Your task to perform on an android device: move a message to another label in the gmail app Image 0: 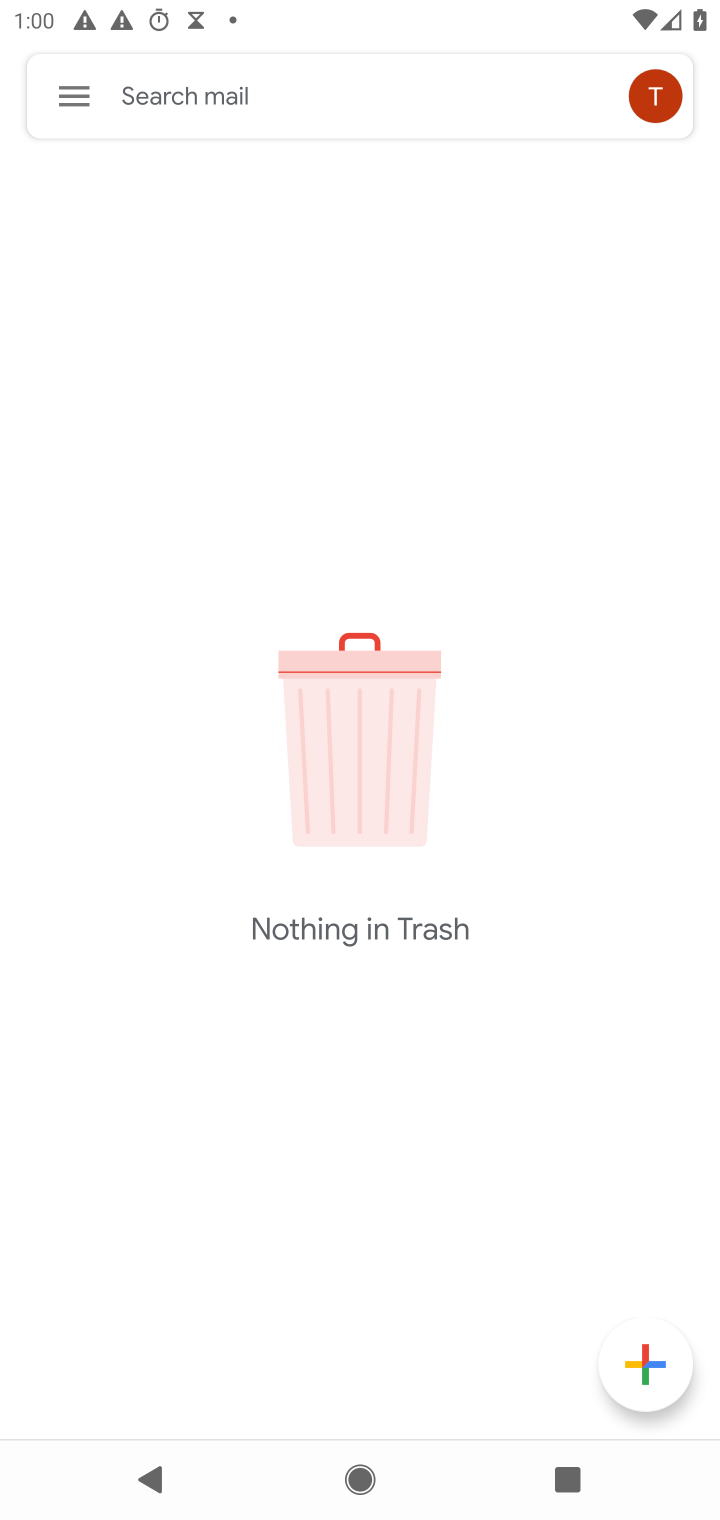
Step 0: press home button
Your task to perform on an android device: move a message to another label in the gmail app Image 1: 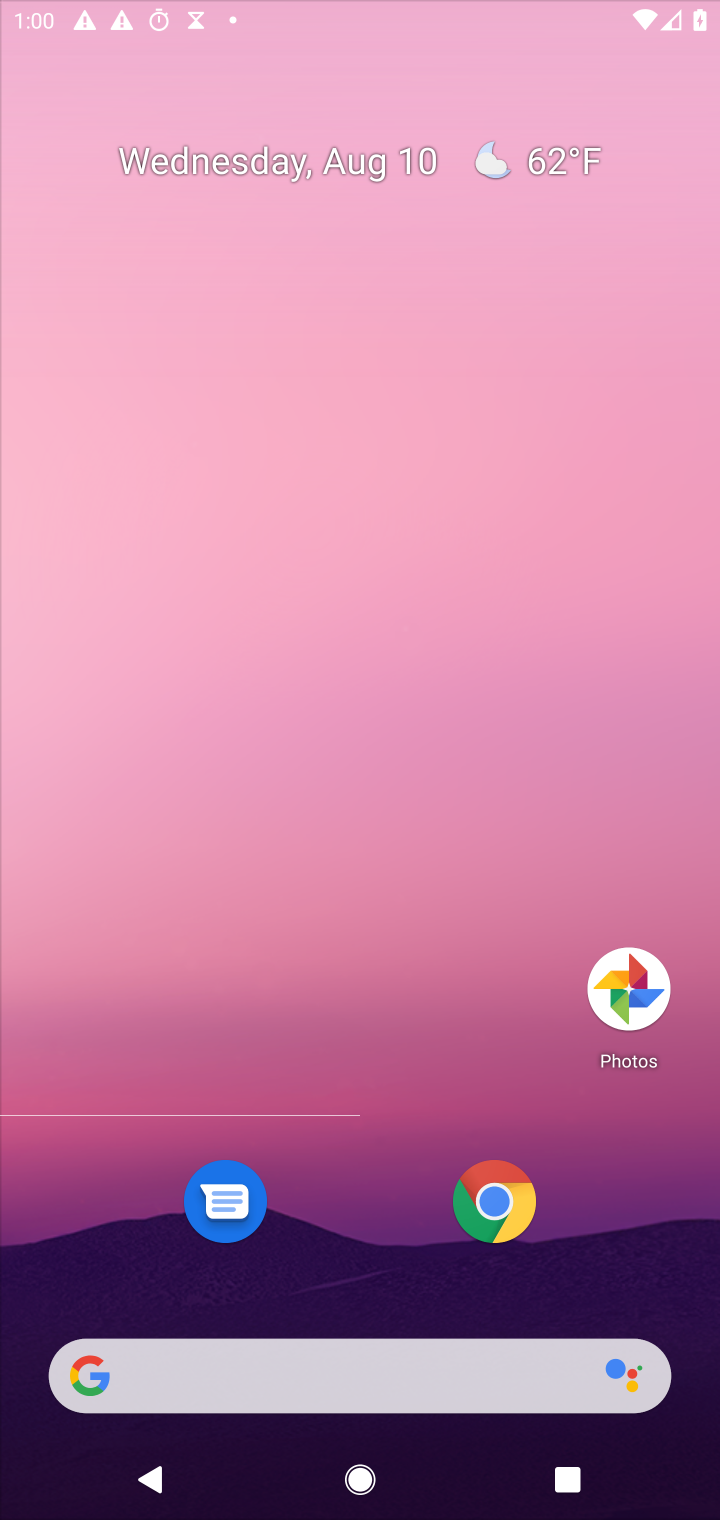
Step 1: drag from (342, 1154) to (330, 34)
Your task to perform on an android device: move a message to another label in the gmail app Image 2: 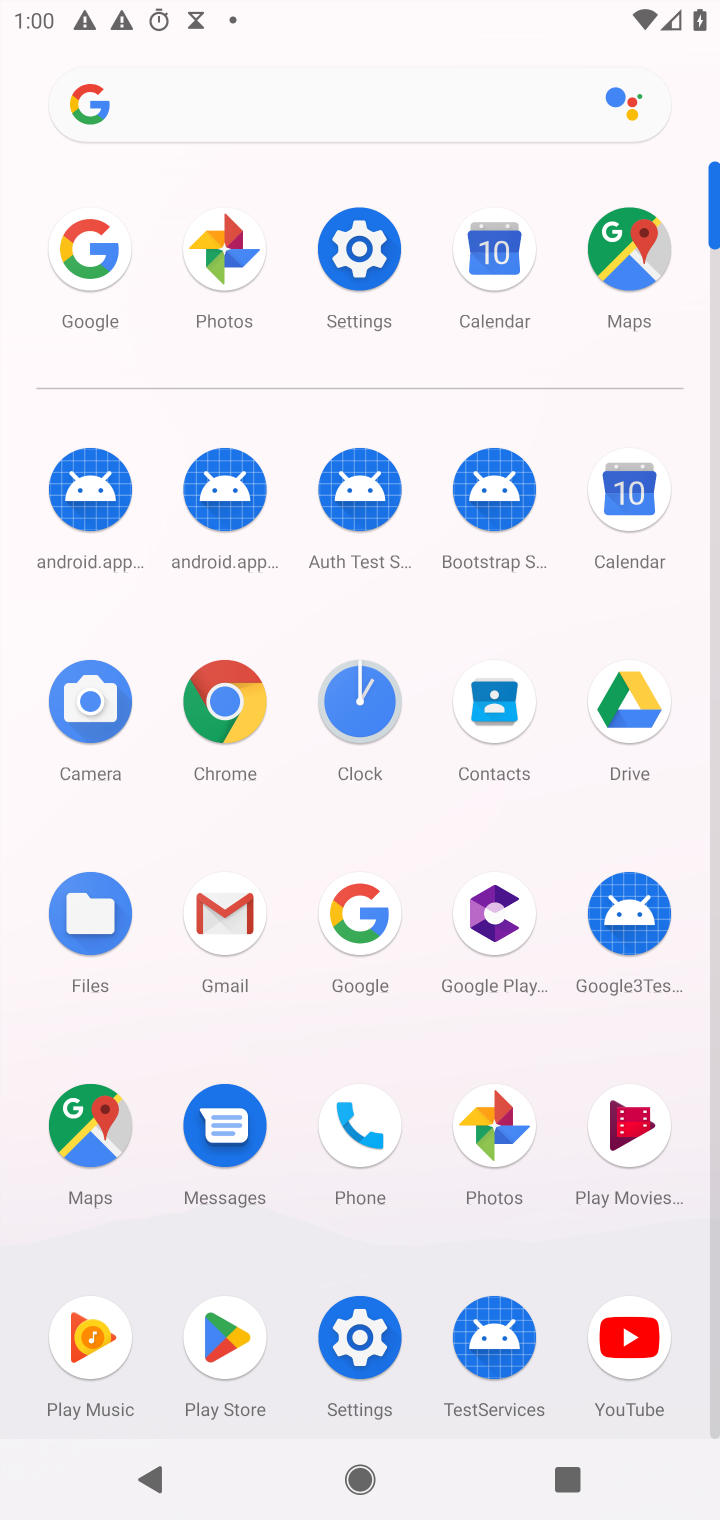
Step 2: click (219, 905)
Your task to perform on an android device: move a message to another label in the gmail app Image 3: 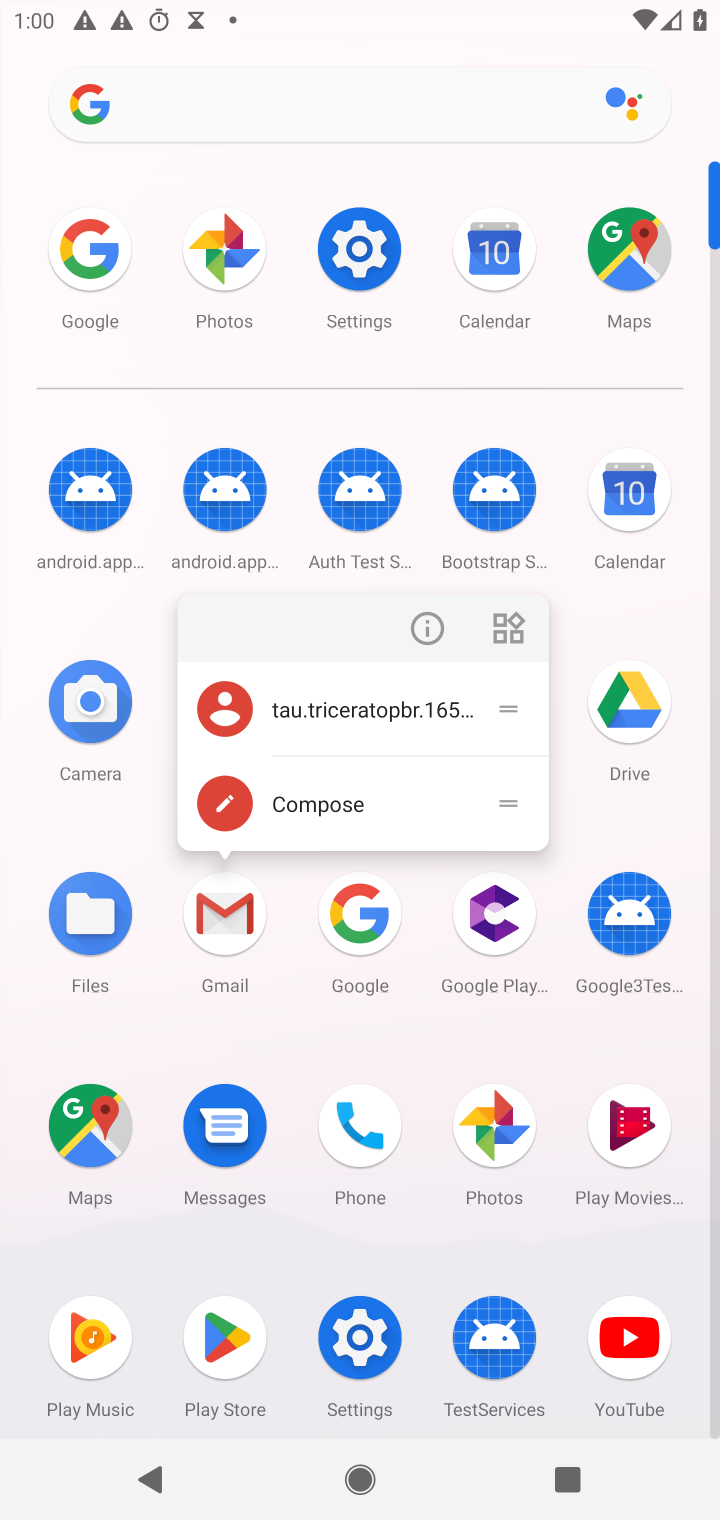
Step 3: click (229, 920)
Your task to perform on an android device: move a message to another label in the gmail app Image 4: 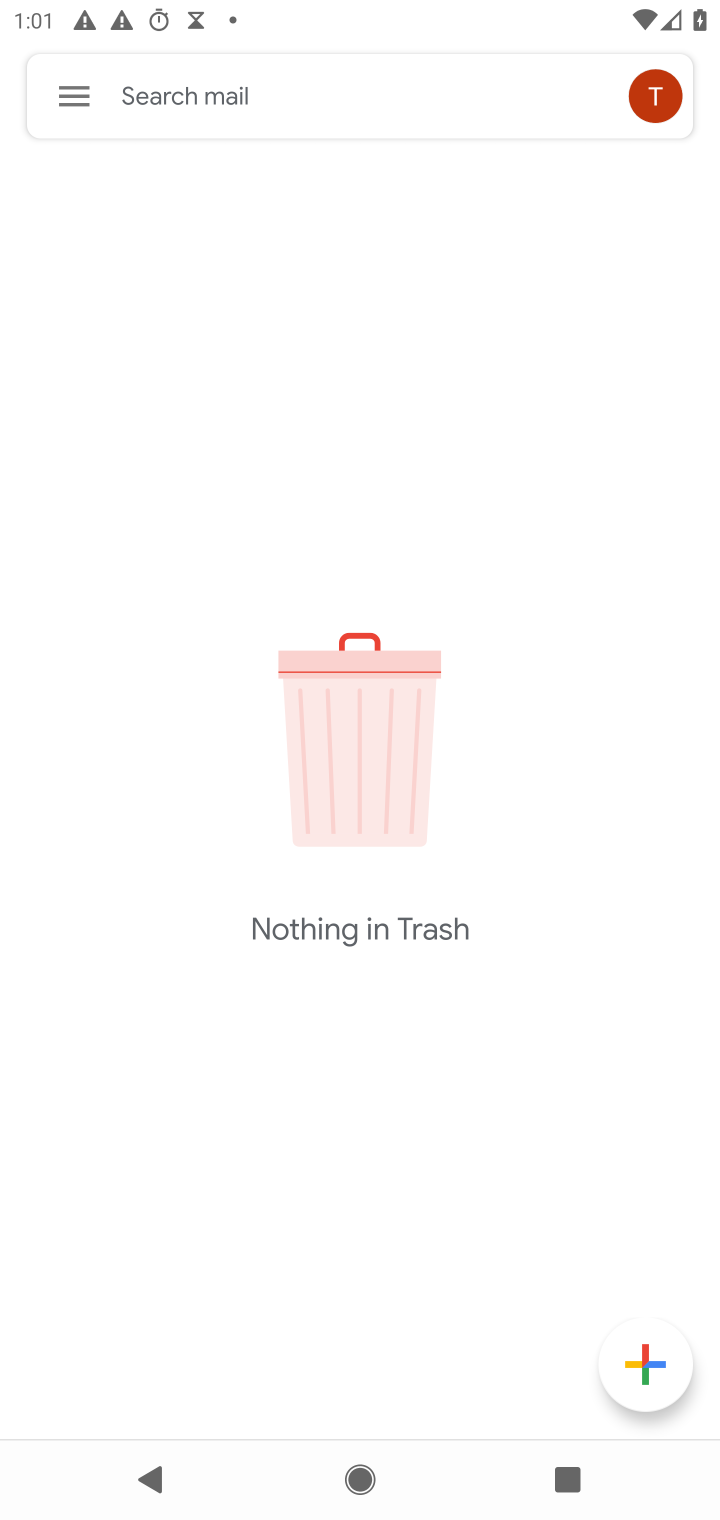
Step 4: click (85, 105)
Your task to perform on an android device: move a message to another label in the gmail app Image 5: 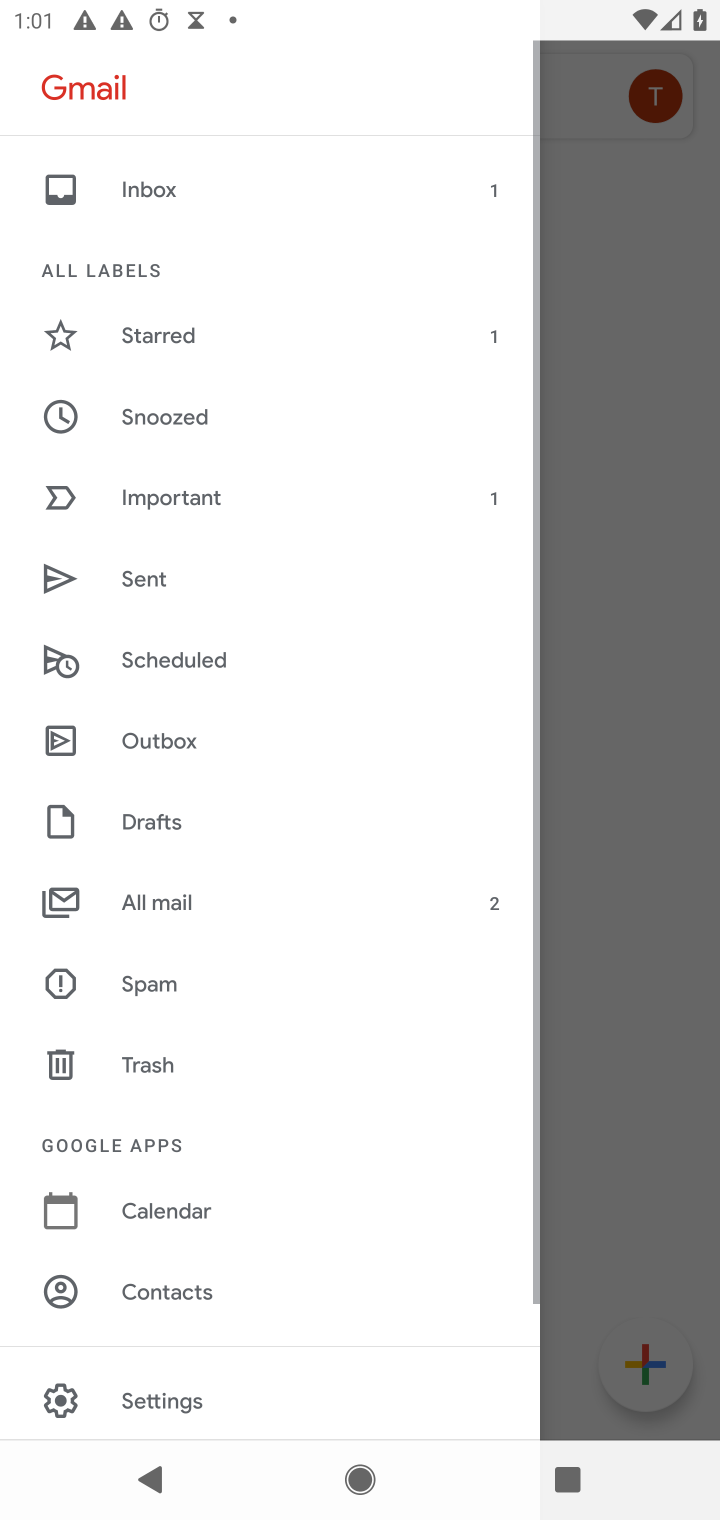
Step 5: click (138, 905)
Your task to perform on an android device: move a message to another label in the gmail app Image 6: 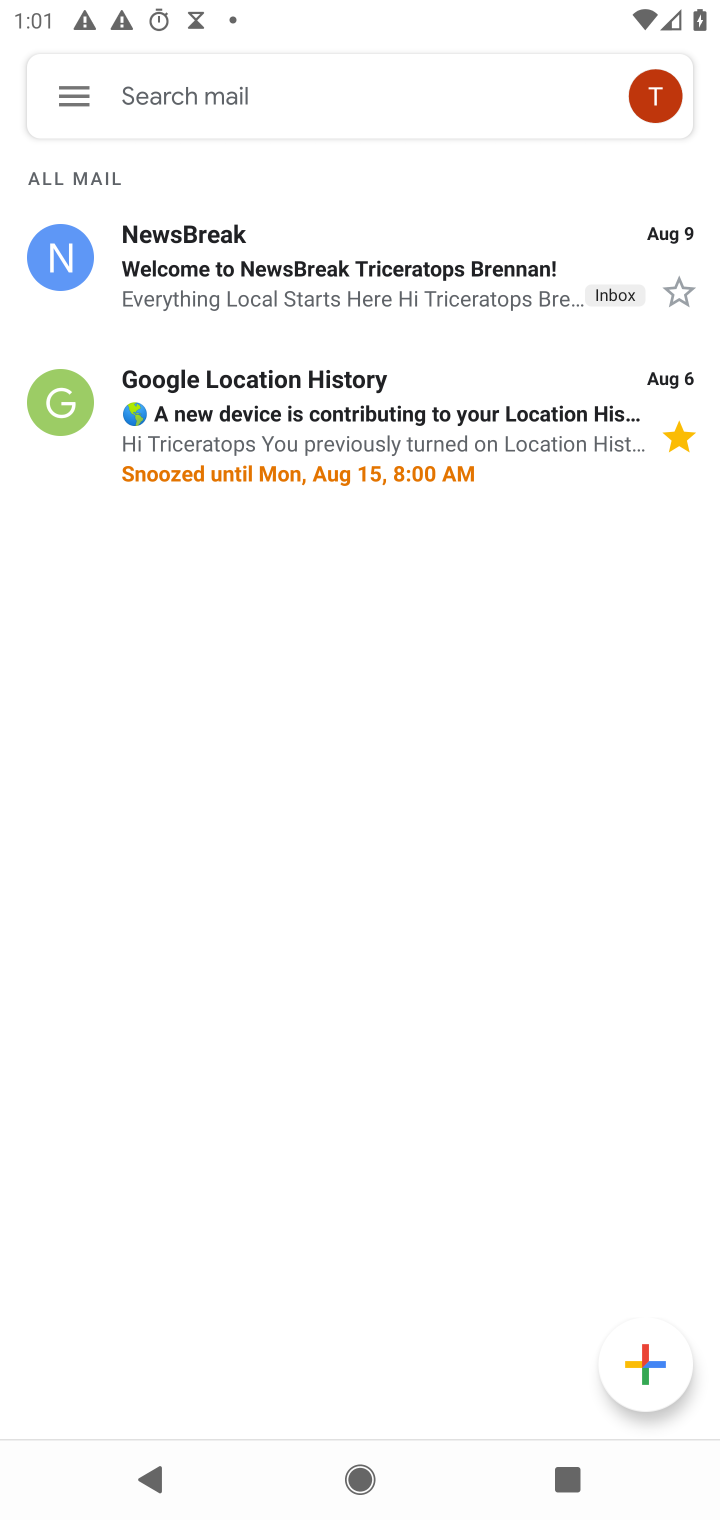
Step 6: click (259, 279)
Your task to perform on an android device: move a message to another label in the gmail app Image 7: 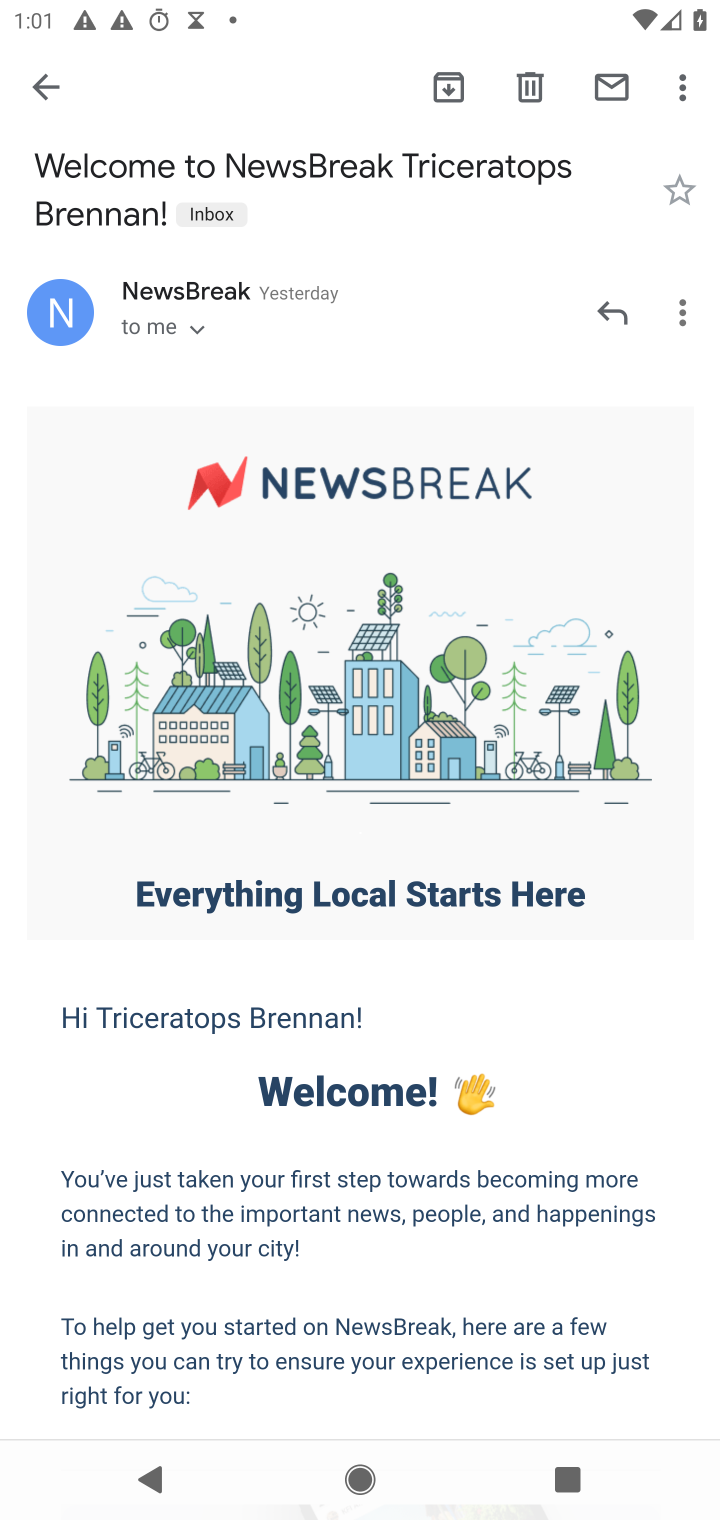
Step 7: click (694, 80)
Your task to perform on an android device: move a message to another label in the gmail app Image 8: 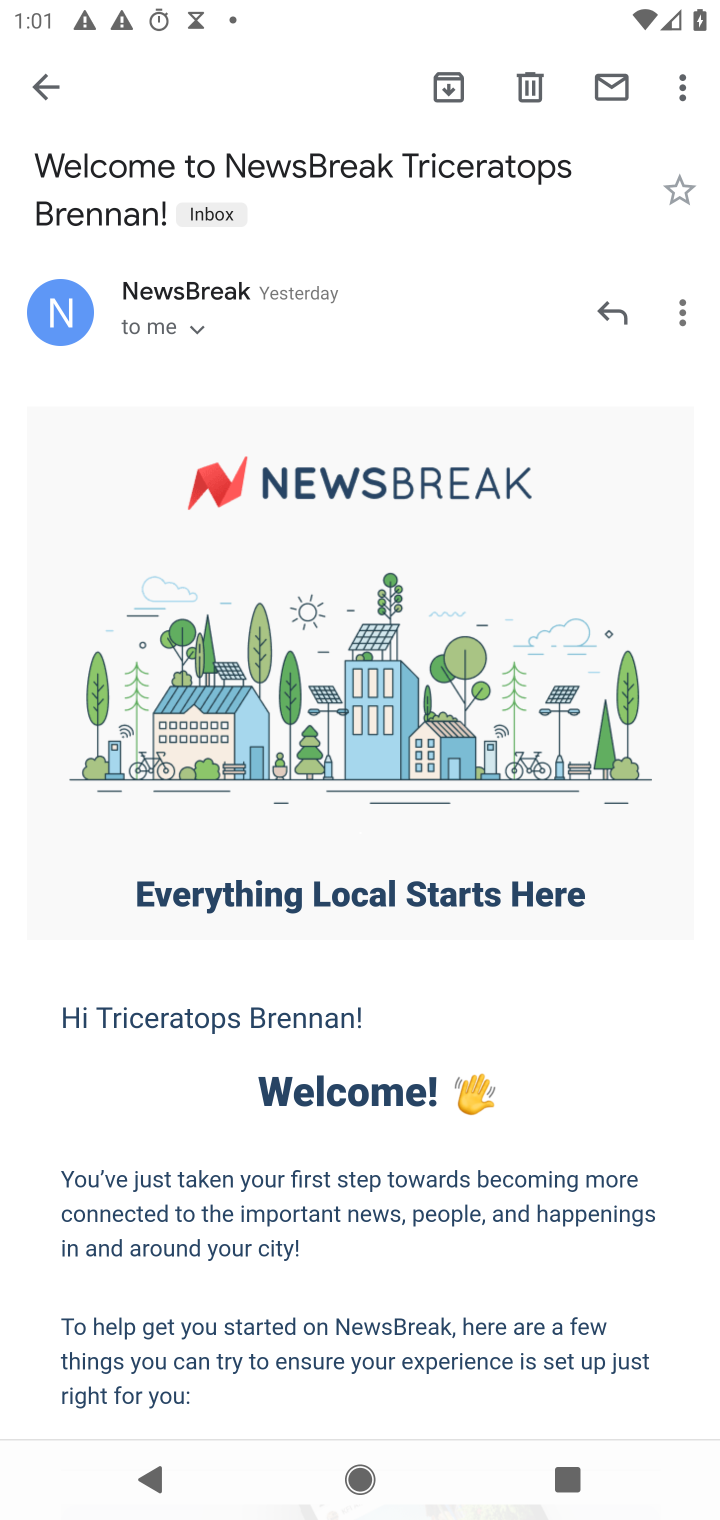
Step 8: click (677, 81)
Your task to perform on an android device: move a message to another label in the gmail app Image 9: 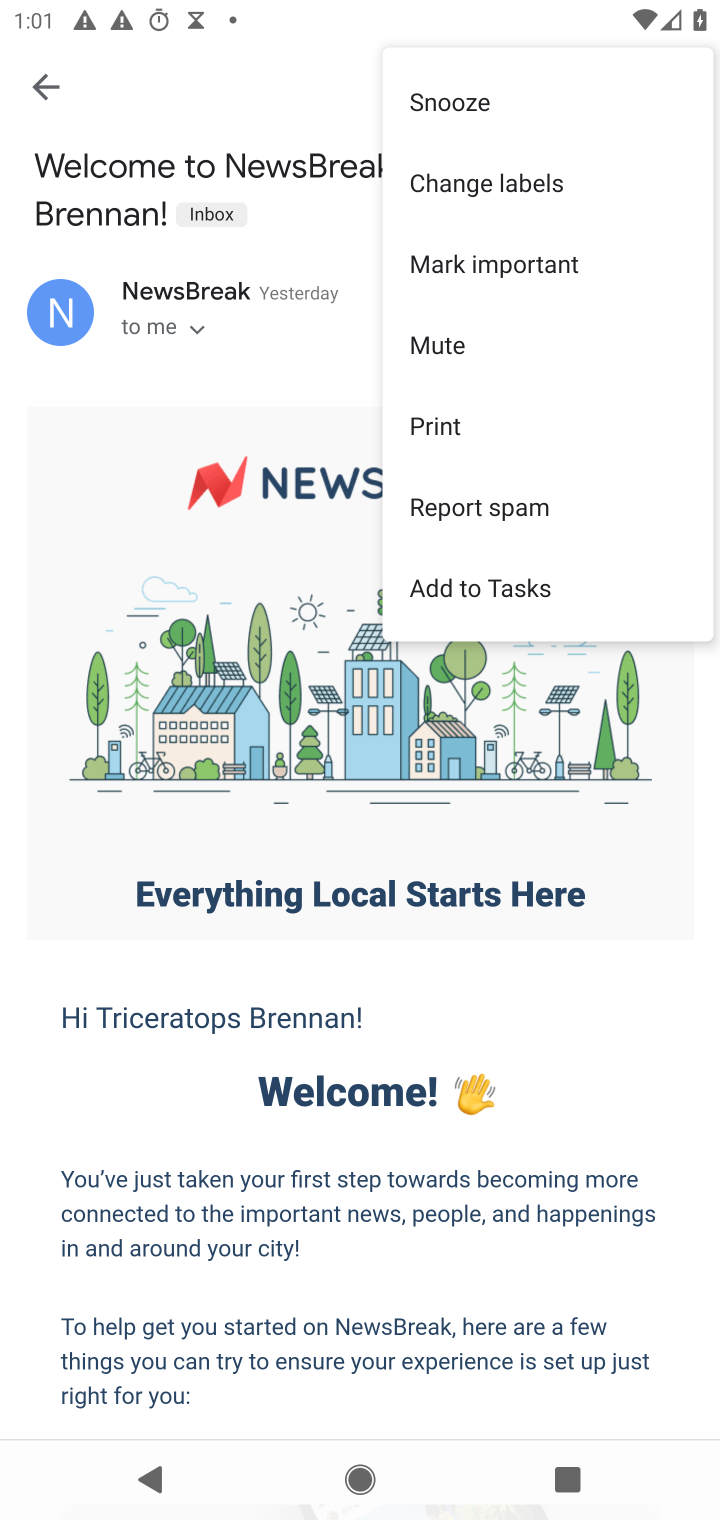
Step 9: click (535, 184)
Your task to perform on an android device: move a message to another label in the gmail app Image 10: 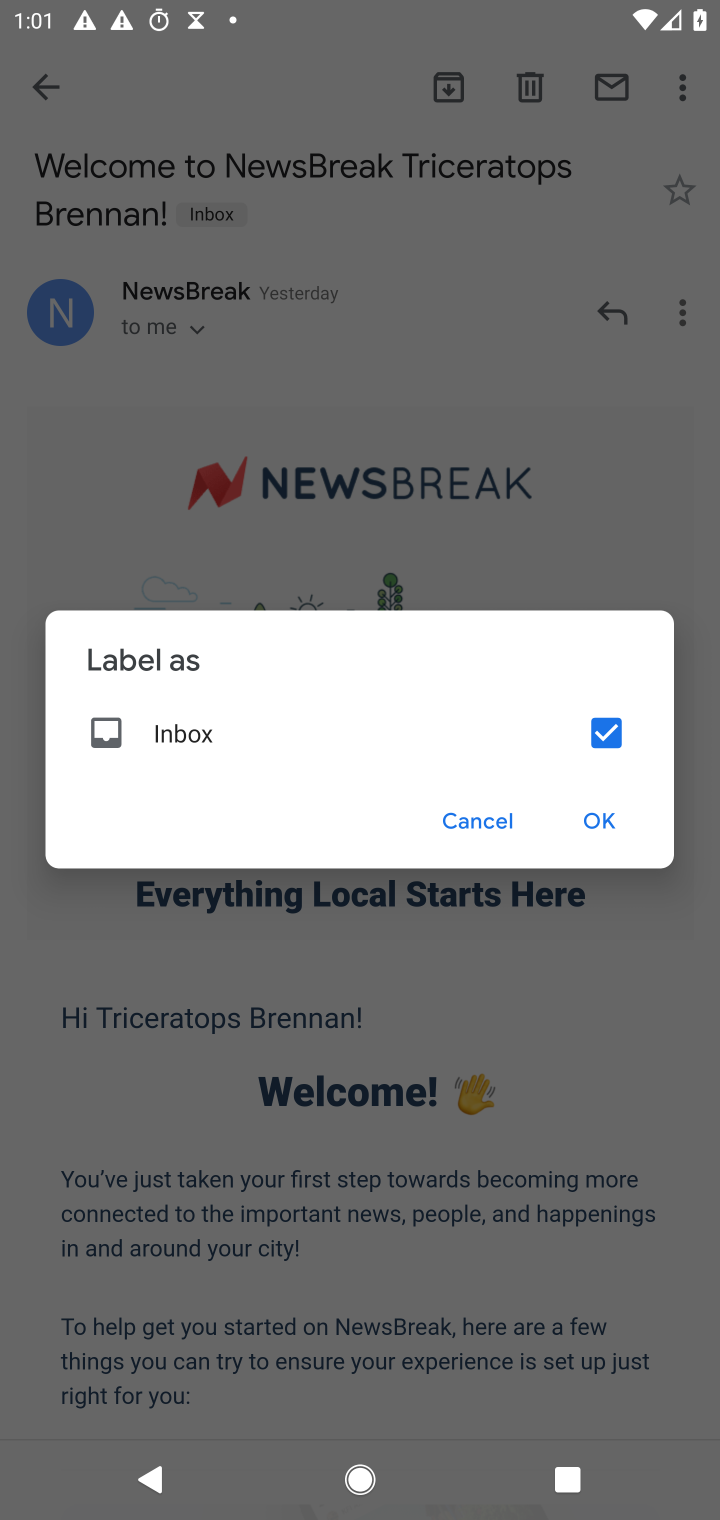
Step 10: click (606, 823)
Your task to perform on an android device: move a message to another label in the gmail app Image 11: 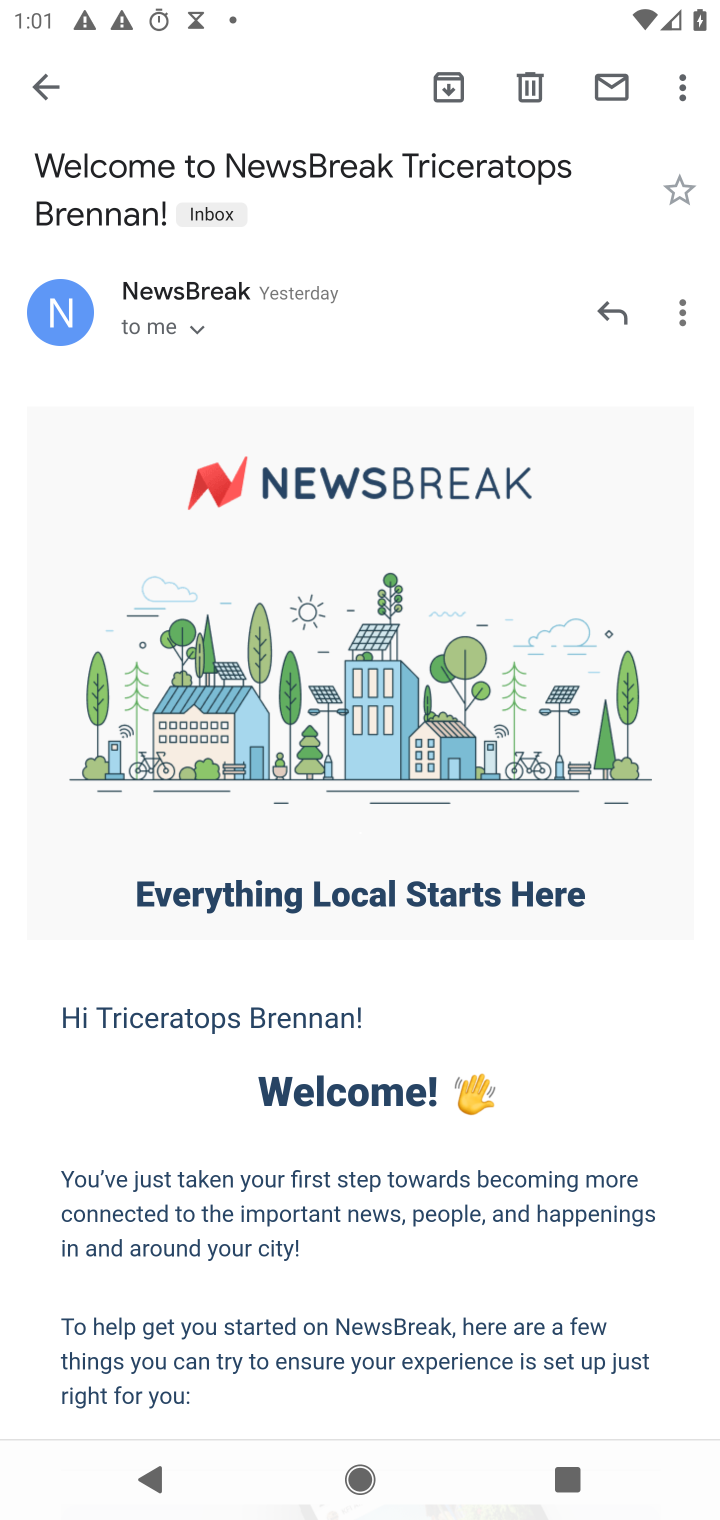
Step 11: task complete